Your task to perform on an android device: turn off priority inbox in the gmail app Image 0: 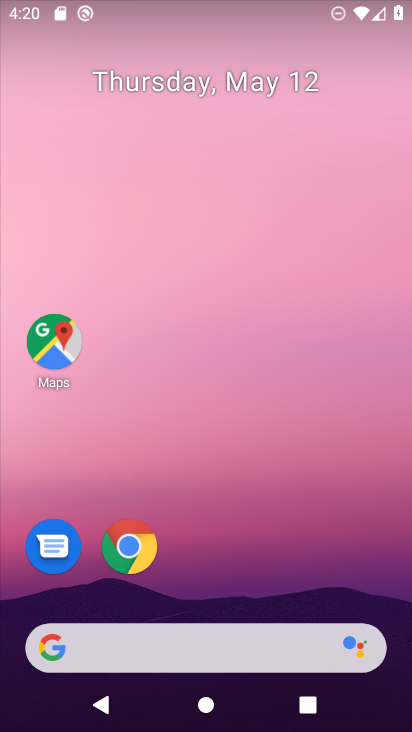
Step 0: drag from (284, 584) to (325, 186)
Your task to perform on an android device: turn off priority inbox in the gmail app Image 1: 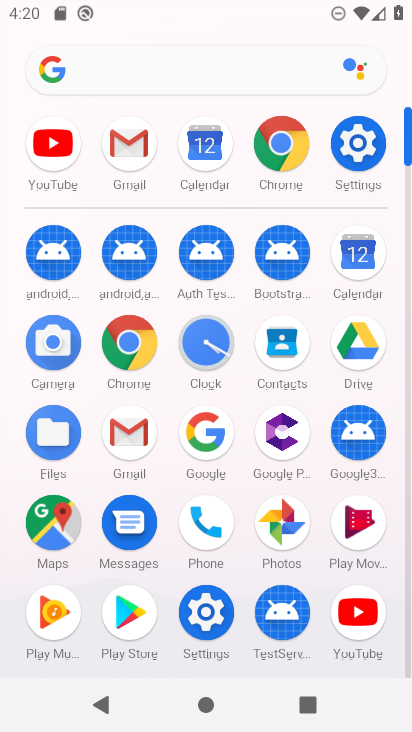
Step 1: click (118, 422)
Your task to perform on an android device: turn off priority inbox in the gmail app Image 2: 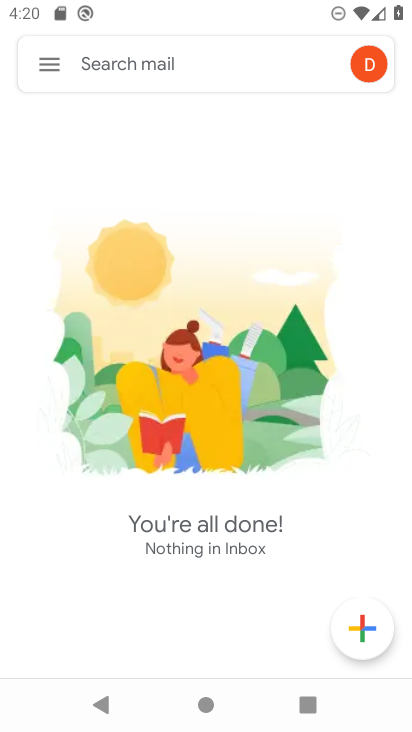
Step 2: click (38, 68)
Your task to perform on an android device: turn off priority inbox in the gmail app Image 3: 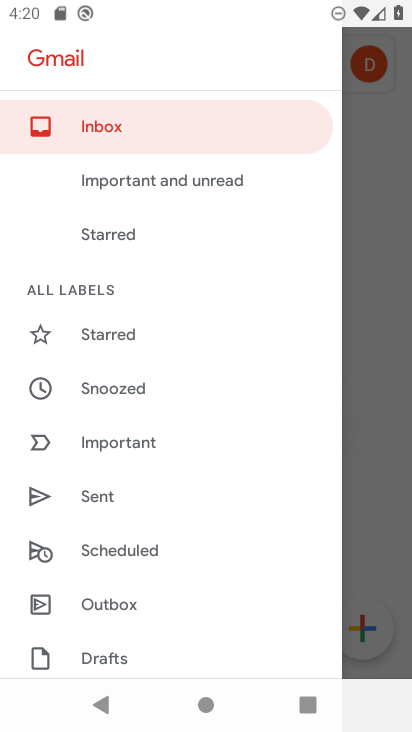
Step 3: drag from (147, 587) to (221, 238)
Your task to perform on an android device: turn off priority inbox in the gmail app Image 4: 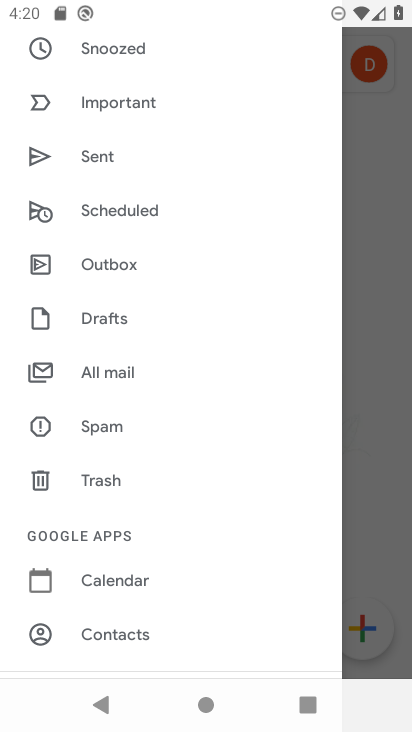
Step 4: drag from (144, 598) to (229, 309)
Your task to perform on an android device: turn off priority inbox in the gmail app Image 5: 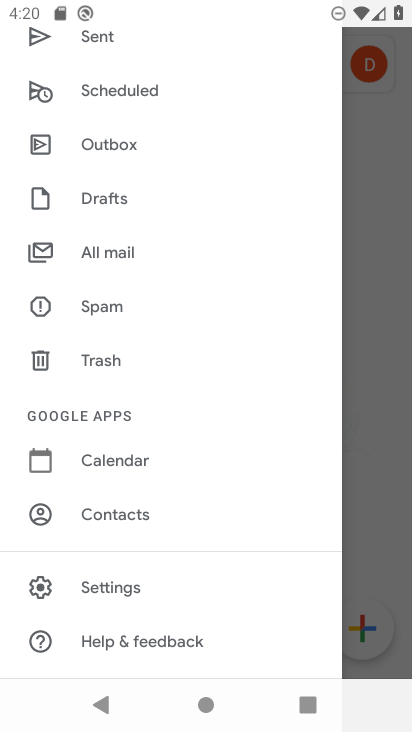
Step 5: click (129, 583)
Your task to perform on an android device: turn off priority inbox in the gmail app Image 6: 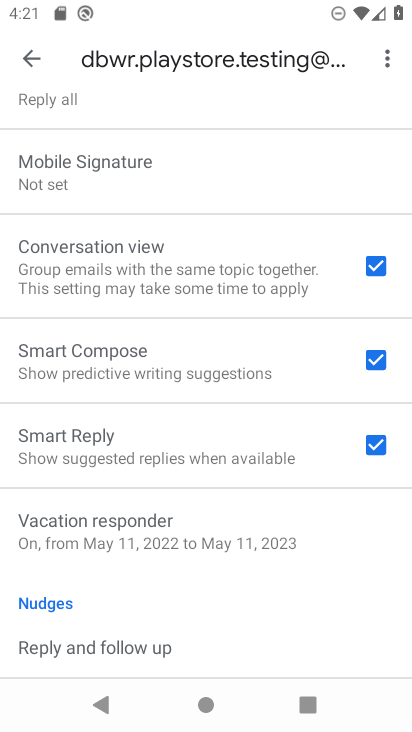
Step 6: drag from (205, 184) to (159, 628)
Your task to perform on an android device: turn off priority inbox in the gmail app Image 7: 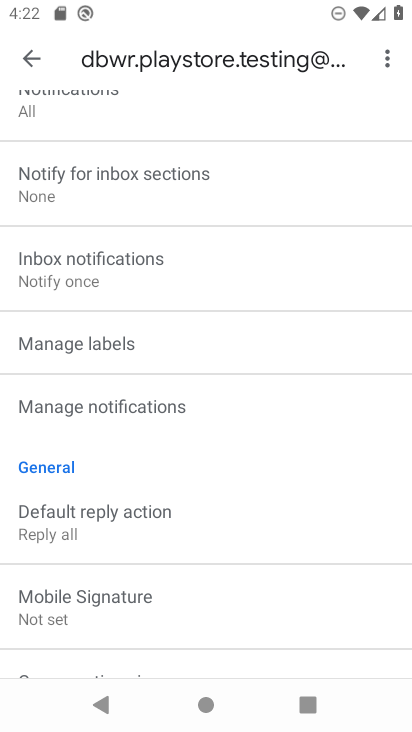
Step 7: drag from (109, 183) to (162, 548)
Your task to perform on an android device: turn off priority inbox in the gmail app Image 8: 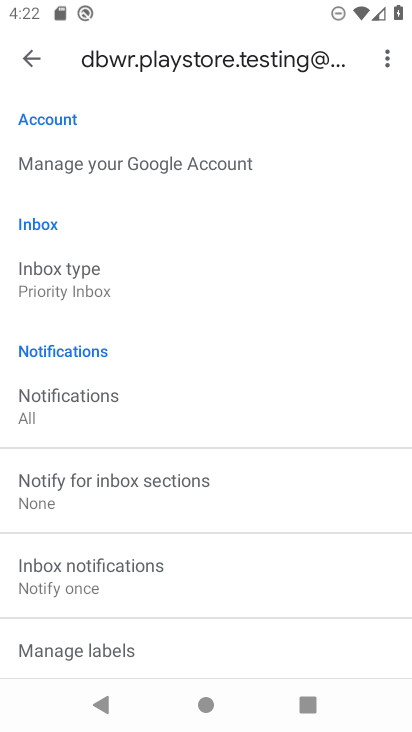
Step 8: click (117, 567)
Your task to perform on an android device: turn off priority inbox in the gmail app Image 9: 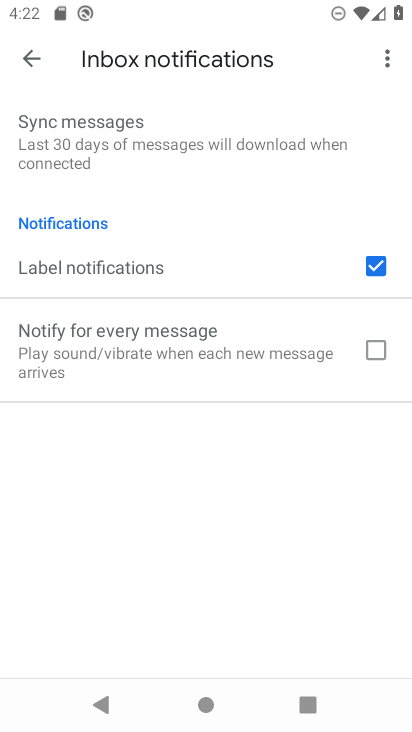
Step 9: click (29, 59)
Your task to perform on an android device: turn off priority inbox in the gmail app Image 10: 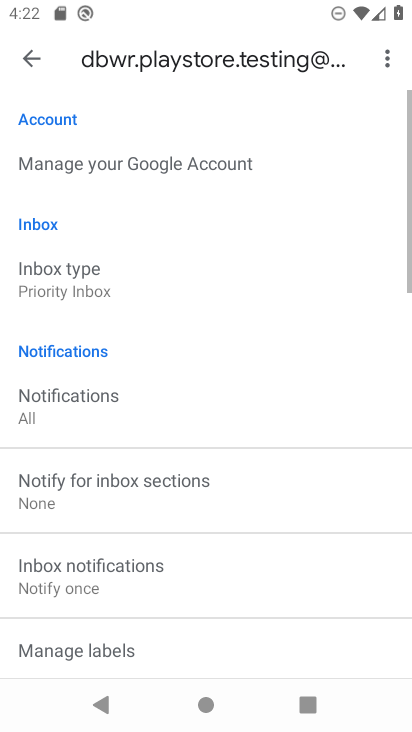
Step 10: click (69, 285)
Your task to perform on an android device: turn off priority inbox in the gmail app Image 11: 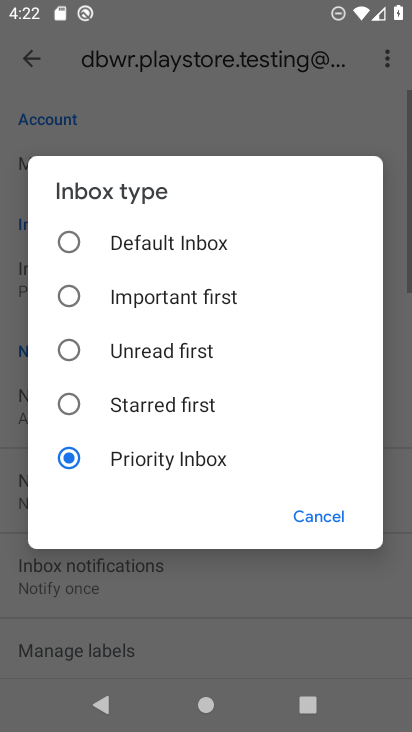
Step 11: click (121, 241)
Your task to perform on an android device: turn off priority inbox in the gmail app Image 12: 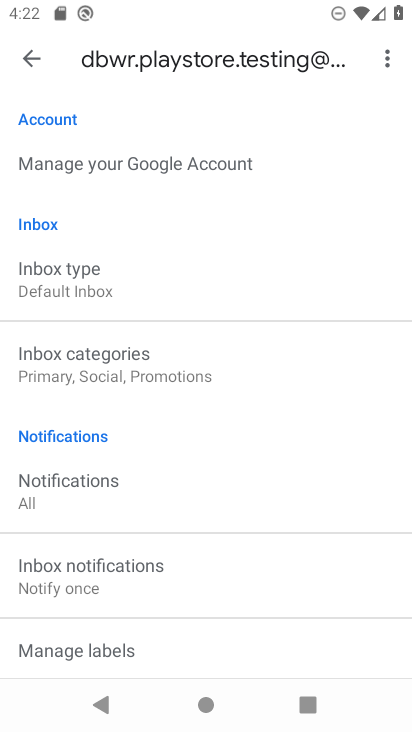
Step 12: task complete